Your task to perform on an android device: Open location settings Image 0: 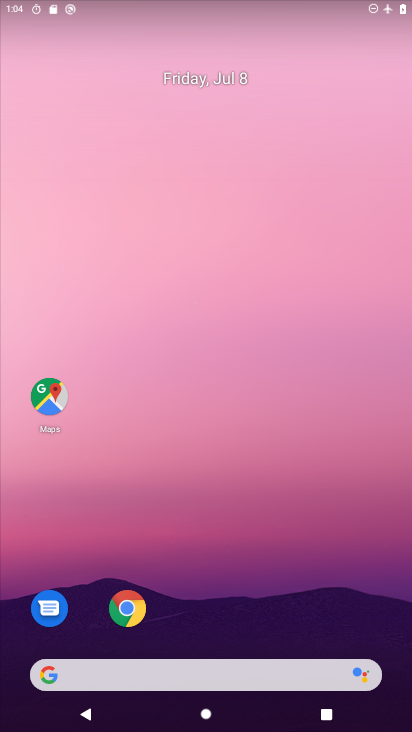
Step 0: drag from (242, 718) to (233, 102)
Your task to perform on an android device: Open location settings Image 1: 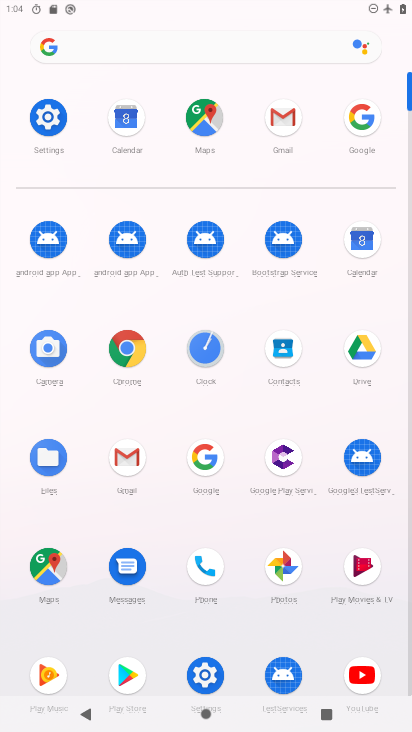
Step 1: click (54, 118)
Your task to perform on an android device: Open location settings Image 2: 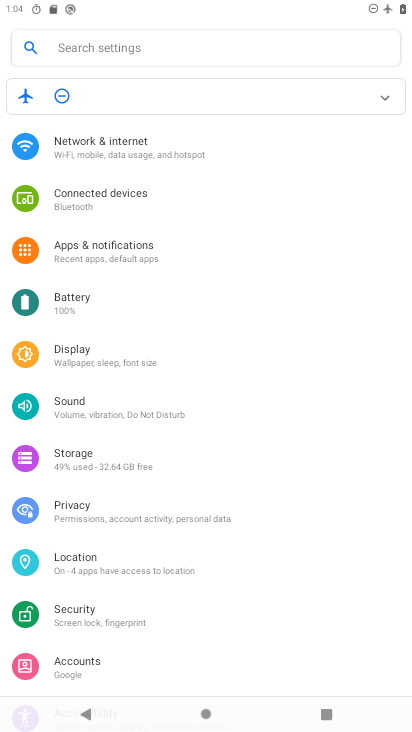
Step 2: click (87, 559)
Your task to perform on an android device: Open location settings Image 3: 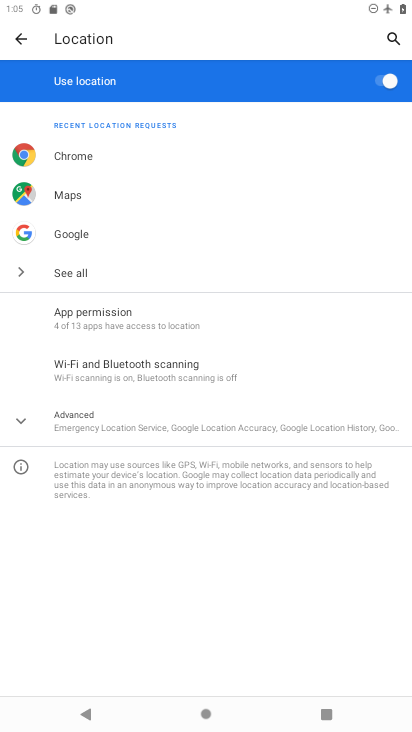
Step 3: task complete